Your task to perform on an android device: Open Google Maps Image 0: 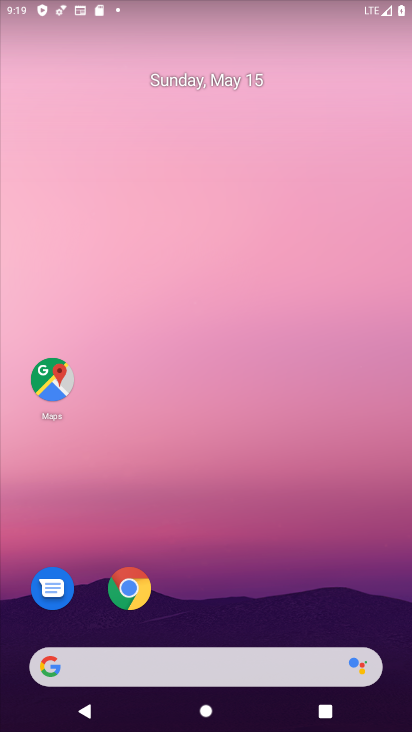
Step 0: drag from (266, 551) to (247, 108)
Your task to perform on an android device: Open Google Maps Image 1: 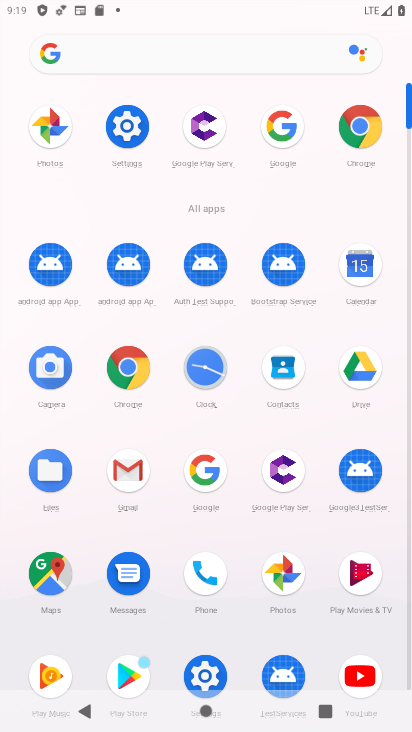
Step 1: click (53, 580)
Your task to perform on an android device: Open Google Maps Image 2: 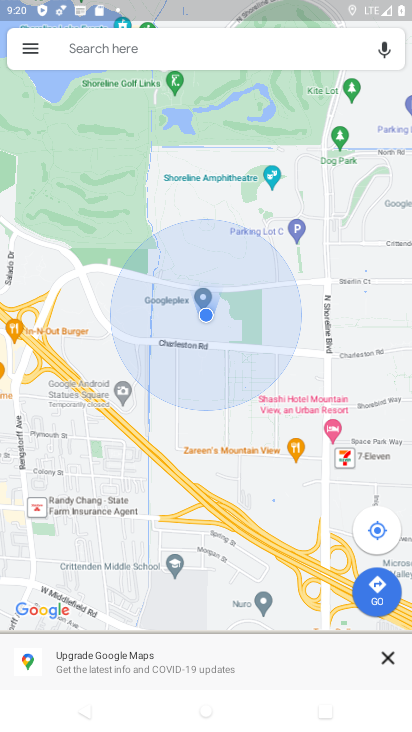
Step 2: task complete